Your task to perform on an android device: Open Youtube and go to the subscriptions tab Image 0: 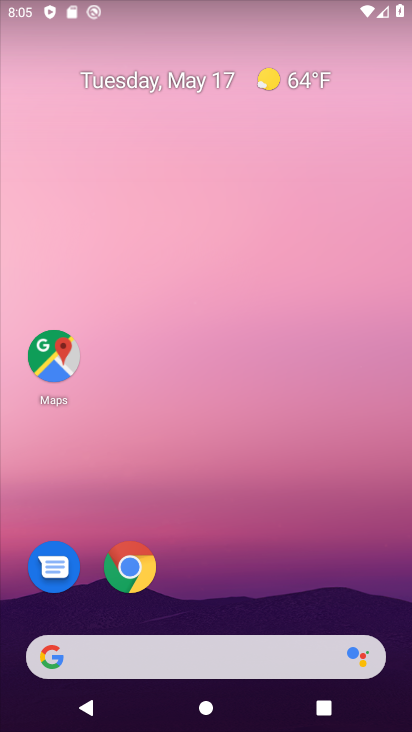
Step 0: drag from (355, 611) to (291, 77)
Your task to perform on an android device: Open Youtube and go to the subscriptions tab Image 1: 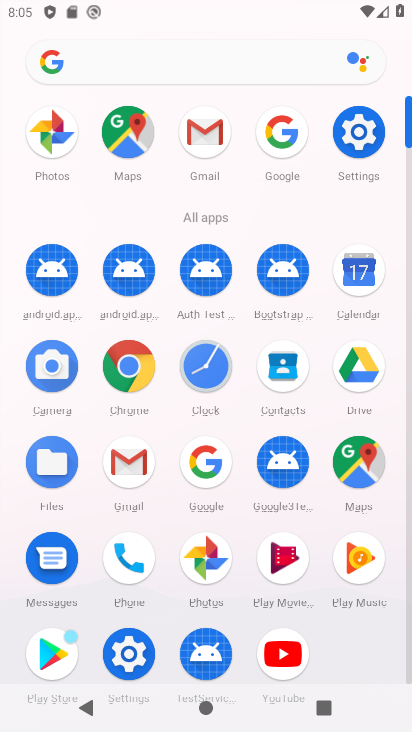
Step 1: click (265, 662)
Your task to perform on an android device: Open Youtube and go to the subscriptions tab Image 2: 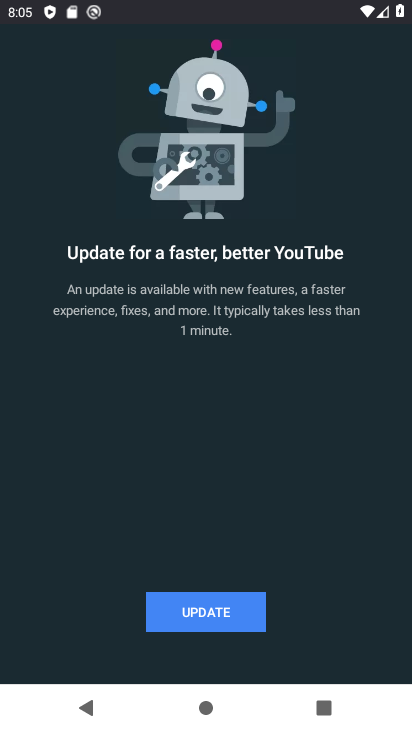
Step 2: drag from (224, 620) to (189, 620)
Your task to perform on an android device: Open Youtube and go to the subscriptions tab Image 3: 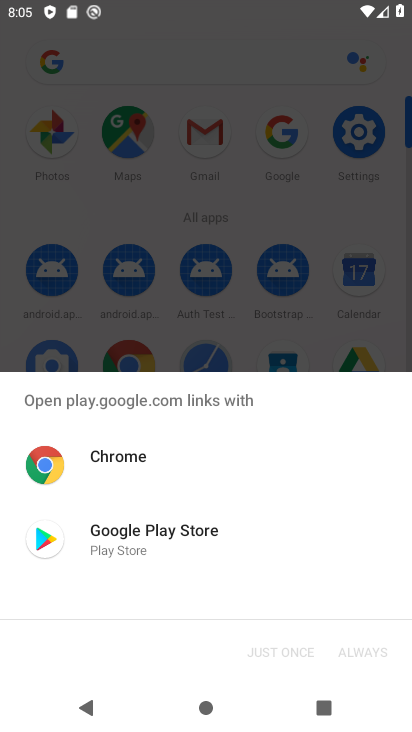
Step 3: click (101, 554)
Your task to perform on an android device: Open Youtube and go to the subscriptions tab Image 4: 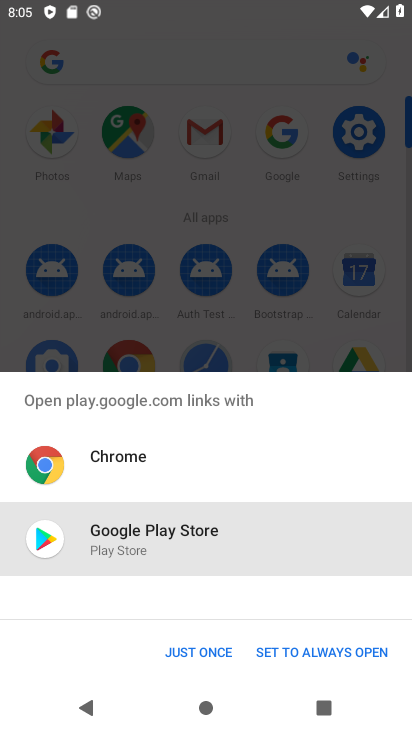
Step 4: click (191, 662)
Your task to perform on an android device: Open Youtube and go to the subscriptions tab Image 5: 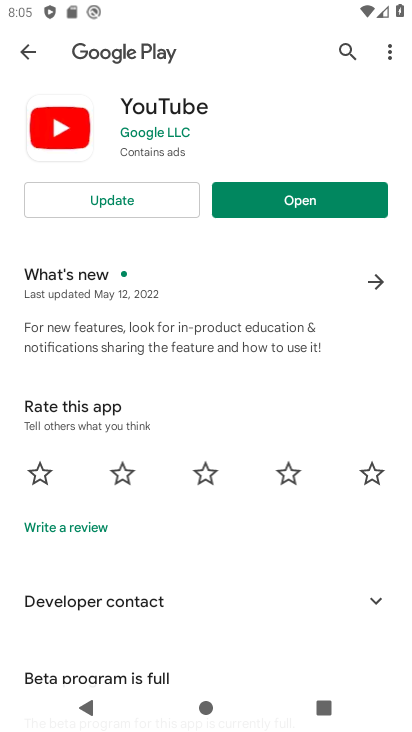
Step 5: click (108, 210)
Your task to perform on an android device: Open Youtube and go to the subscriptions tab Image 6: 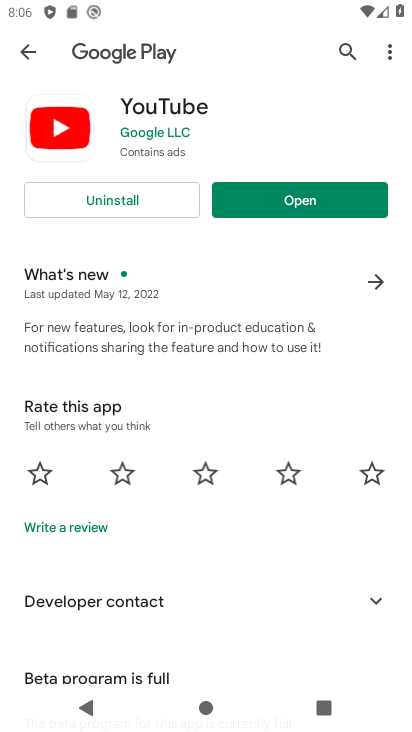
Step 6: click (311, 205)
Your task to perform on an android device: Open Youtube and go to the subscriptions tab Image 7: 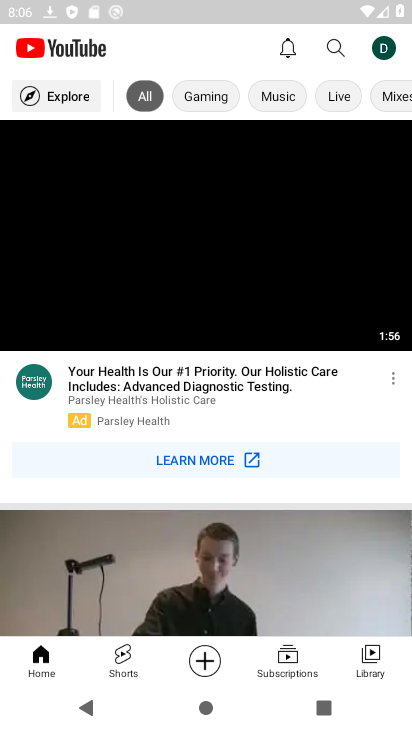
Step 7: click (293, 653)
Your task to perform on an android device: Open Youtube and go to the subscriptions tab Image 8: 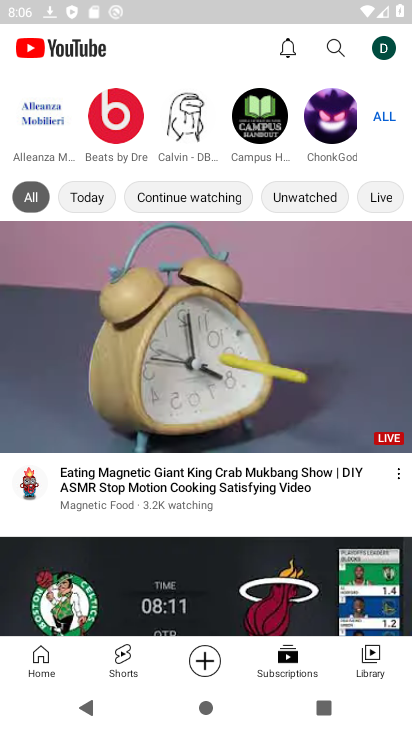
Step 8: task complete